Your task to perform on an android device: turn notification dots on Image 0: 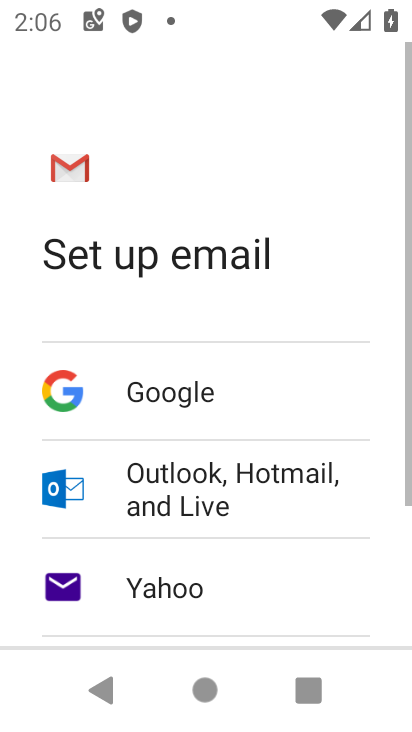
Step 0: press home button
Your task to perform on an android device: turn notification dots on Image 1: 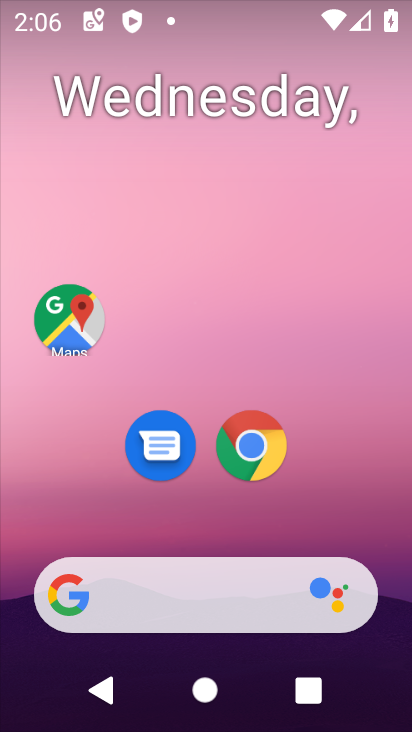
Step 1: drag from (217, 532) to (251, 177)
Your task to perform on an android device: turn notification dots on Image 2: 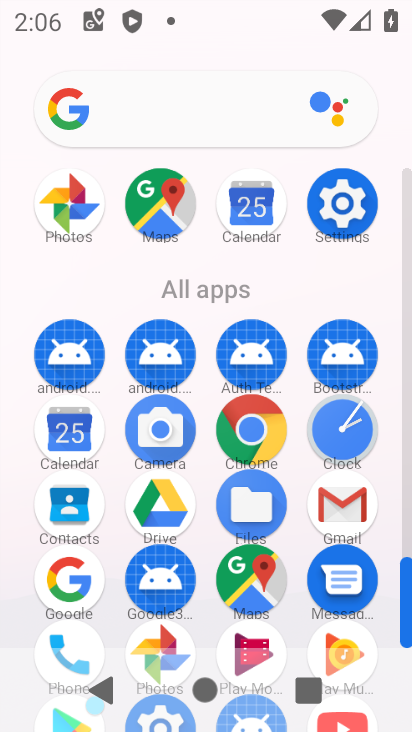
Step 2: click (320, 205)
Your task to perform on an android device: turn notification dots on Image 3: 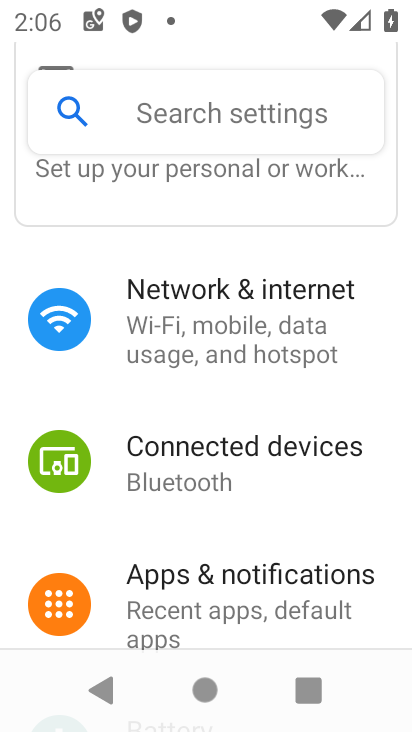
Step 3: click (236, 592)
Your task to perform on an android device: turn notification dots on Image 4: 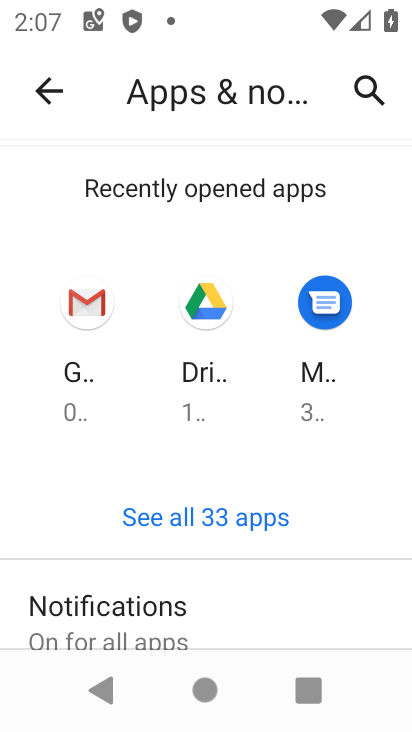
Step 4: click (167, 603)
Your task to perform on an android device: turn notification dots on Image 5: 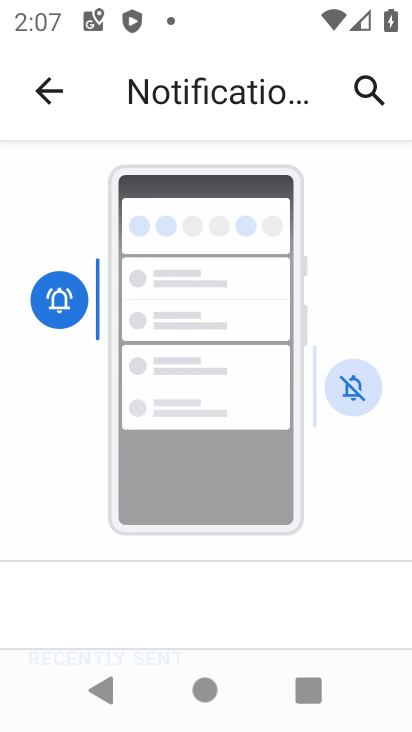
Step 5: drag from (232, 537) to (272, 257)
Your task to perform on an android device: turn notification dots on Image 6: 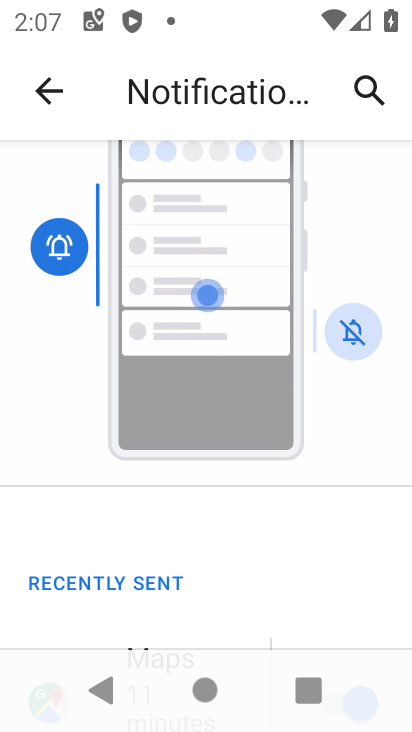
Step 6: drag from (287, 541) to (276, 217)
Your task to perform on an android device: turn notification dots on Image 7: 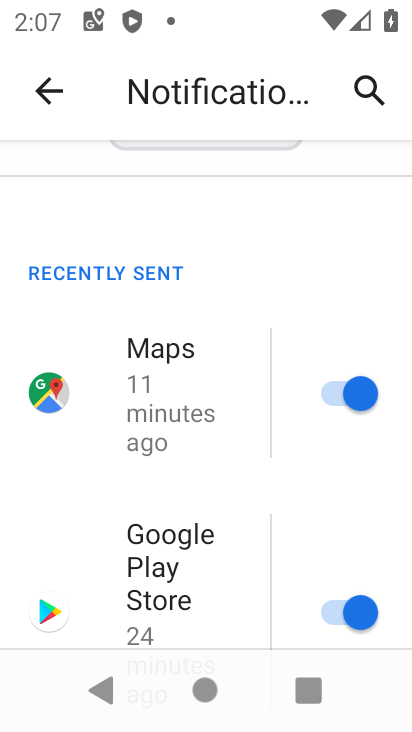
Step 7: click (252, 171)
Your task to perform on an android device: turn notification dots on Image 8: 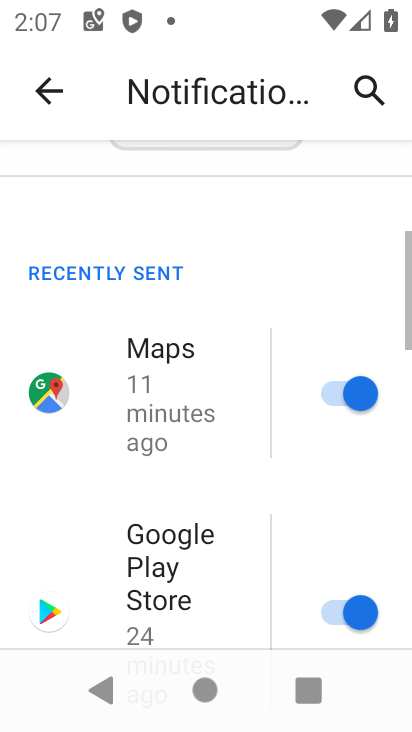
Step 8: drag from (252, 578) to (222, 185)
Your task to perform on an android device: turn notification dots on Image 9: 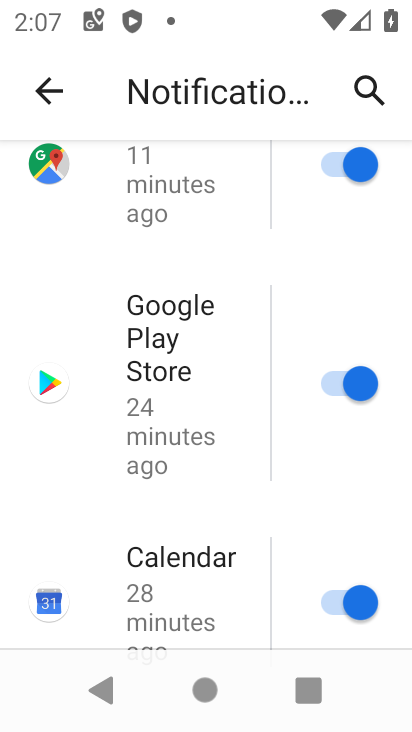
Step 9: drag from (192, 595) to (233, 239)
Your task to perform on an android device: turn notification dots on Image 10: 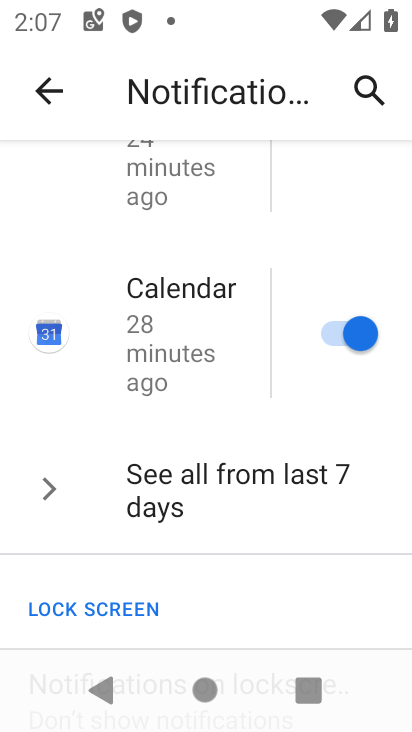
Step 10: drag from (208, 632) to (259, 261)
Your task to perform on an android device: turn notification dots on Image 11: 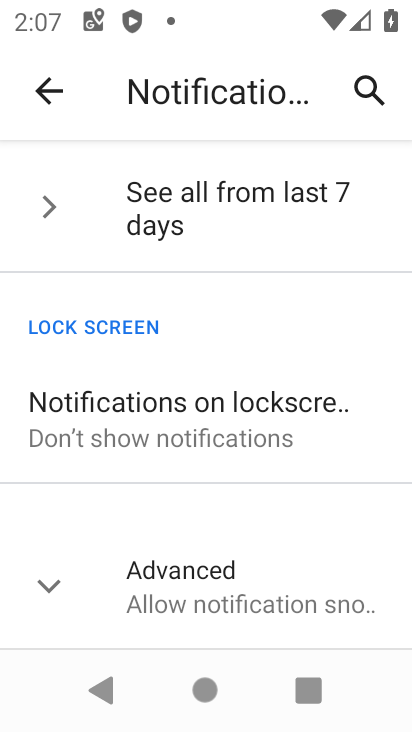
Step 11: click (214, 569)
Your task to perform on an android device: turn notification dots on Image 12: 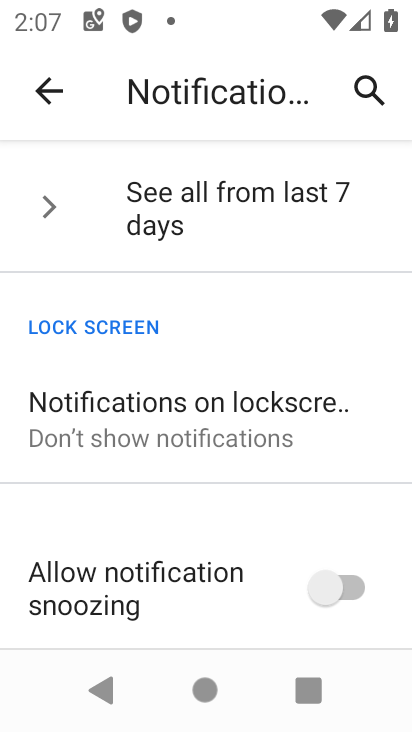
Step 12: task complete